Your task to perform on an android device: all mails in gmail Image 0: 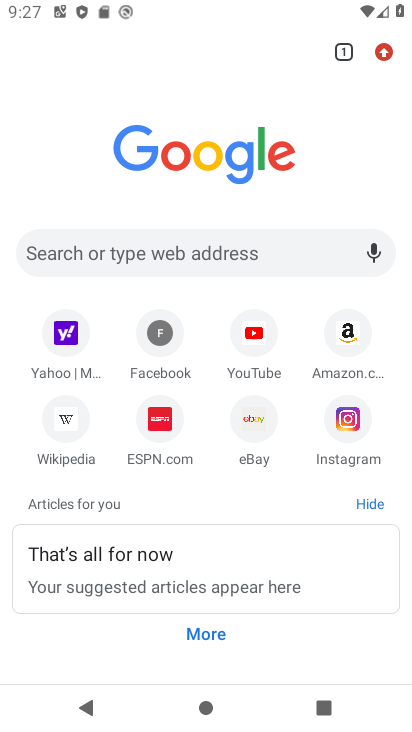
Step 0: press home button
Your task to perform on an android device: all mails in gmail Image 1: 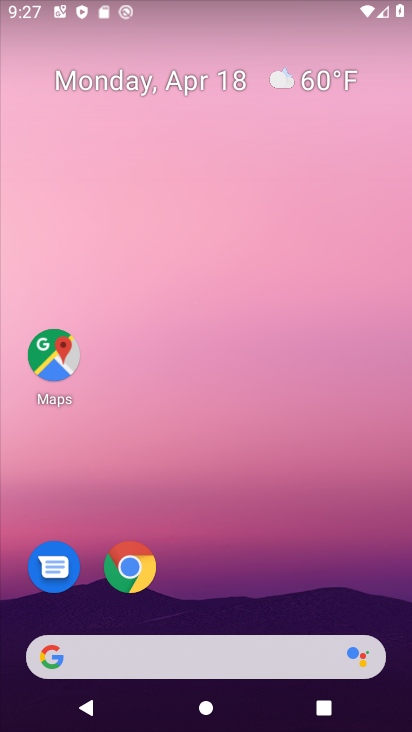
Step 1: drag from (192, 557) to (250, 3)
Your task to perform on an android device: all mails in gmail Image 2: 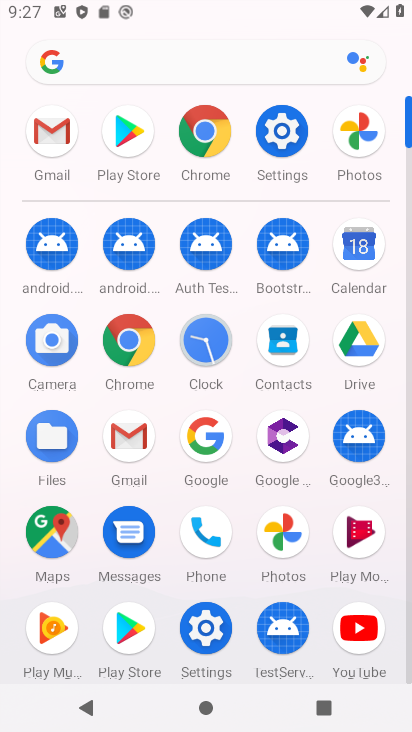
Step 2: click (50, 115)
Your task to perform on an android device: all mails in gmail Image 3: 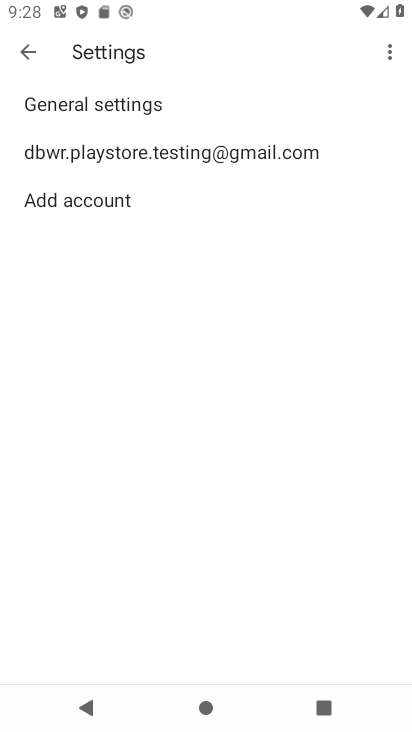
Step 3: click (21, 59)
Your task to perform on an android device: all mails in gmail Image 4: 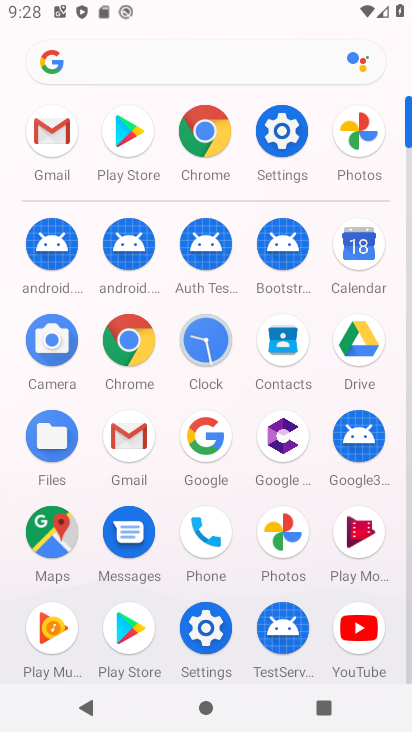
Step 4: click (38, 131)
Your task to perform on an android device: all mails in gmail Image 5: 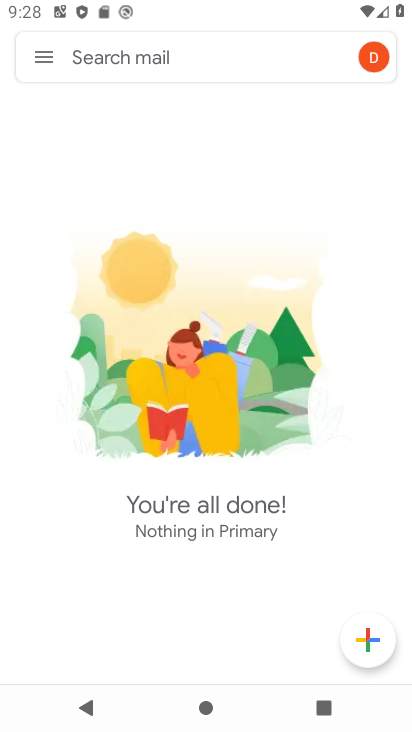
Step 5: task complete